Your task to perform on an android device: manage bookmarks in the chrome app Image 0: 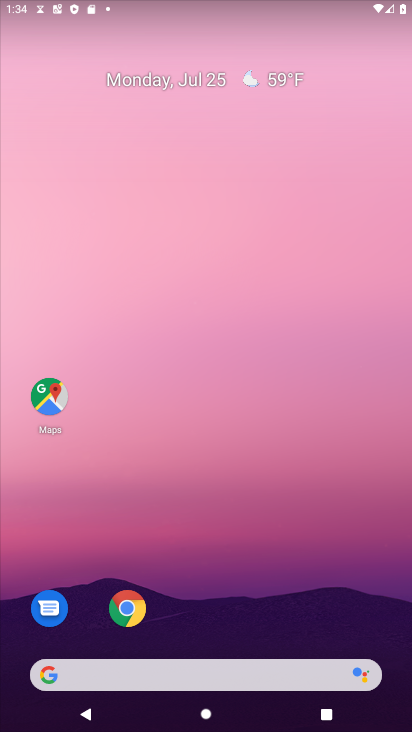
Step 0: drag from (246, 652) to (76, 128)
Your task to perform on an android device: manage bookmarks in the chrome app Image 1: 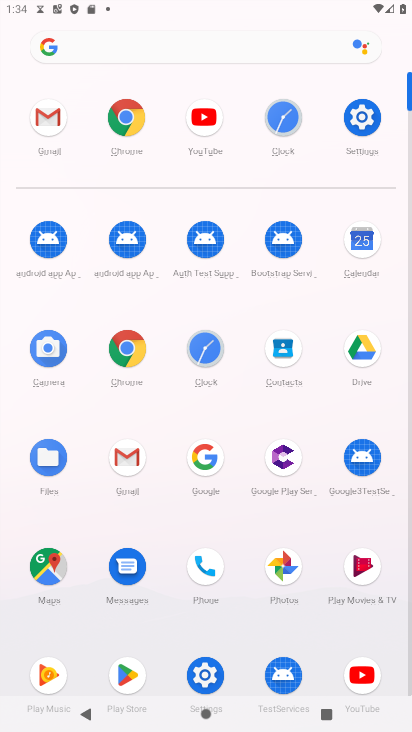
Step 1: click (130, 365)
Your task to perform on an android device: manage bookmarks in the chrome app Image 2: 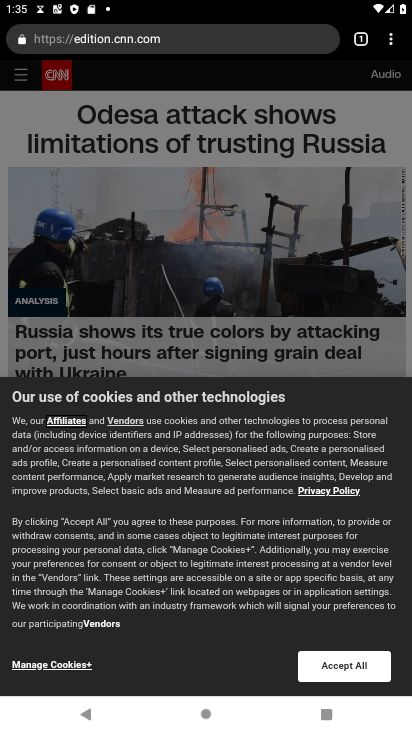
Step 2: click (395, 42)
Your task to perform on an android device: manage bookmarks in the chrome app Image 3: 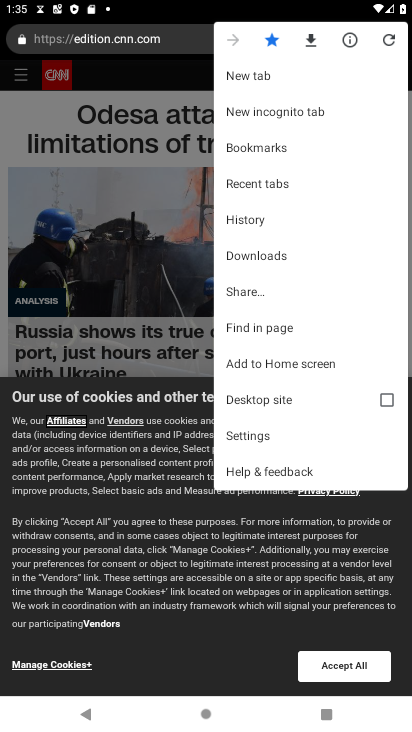
Step 3: click (248, 143)
Your task to perform on an android device: manage bookmarks in the chrome app Image 4: 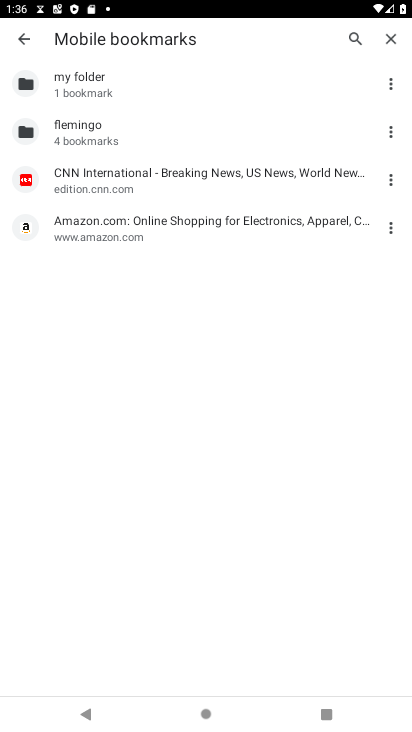
Step 4: click (390, 127)
Your task to perform on an android device: manage bookmarks in the chrome app Image 5: 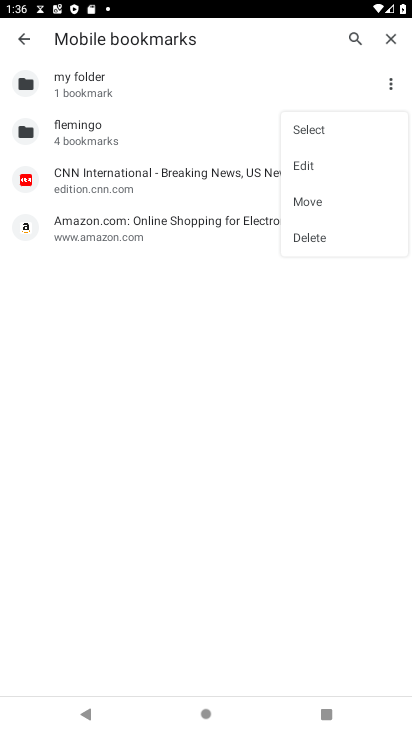
Step 5: click (375, 169)
Your task to perform on an android device: manage bookmarks in the chrome app Image 6: 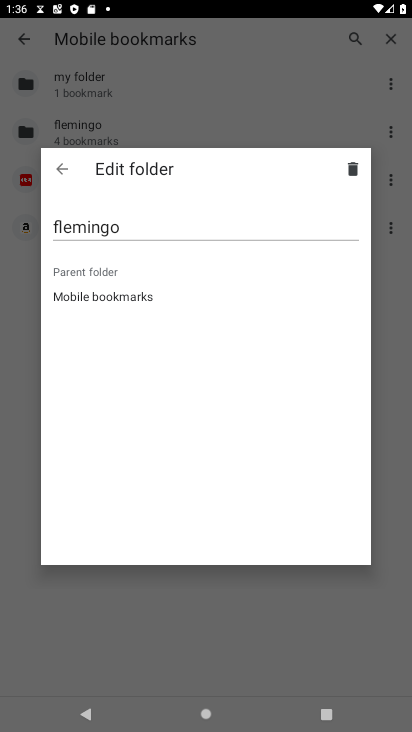
Step 6: click (239, 230)
Your task to perform on an android device: manage bookmarks in the chrome app Image 7: 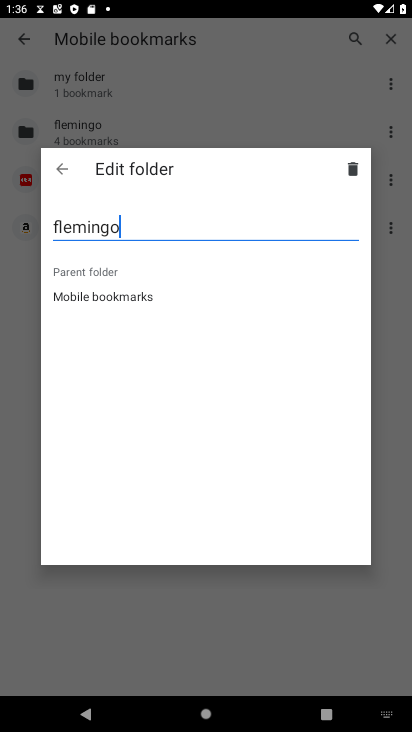
Step 7: click (352, 172)
Your task to perform on an android device: manage bookmarks in the chrome app Image 8: 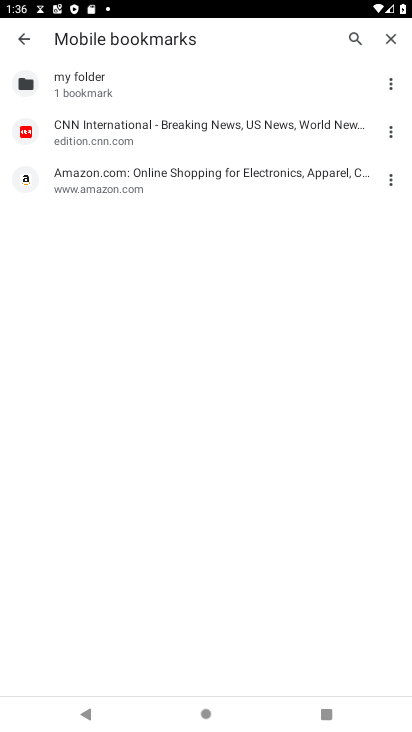
Step 8: click (357, 174)
Your task to perform on an android device: manage bookmarks in the chrome app Image 9: 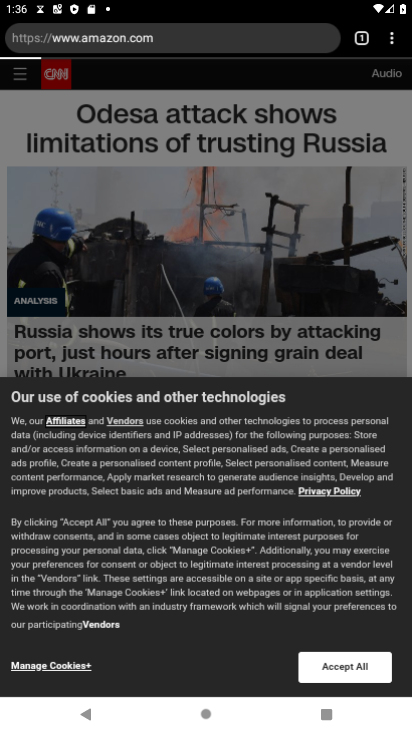
Step 9: task complete